Your task to perform on an android device: check android version Image 0: 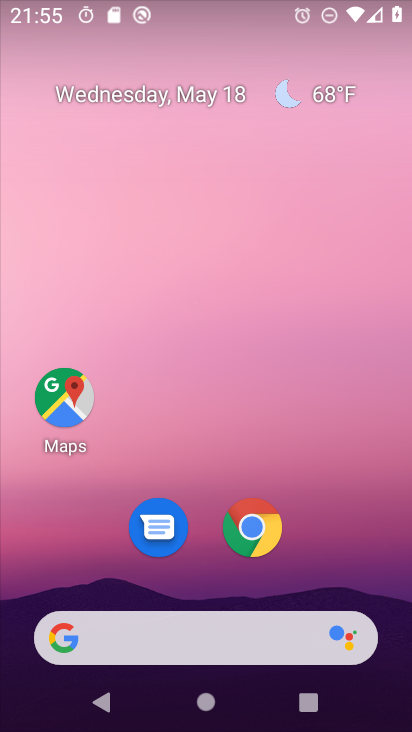
Step 0: drag from (398, 668) to (362, 134)
Your task to perform on an android device: check android version Image 1: 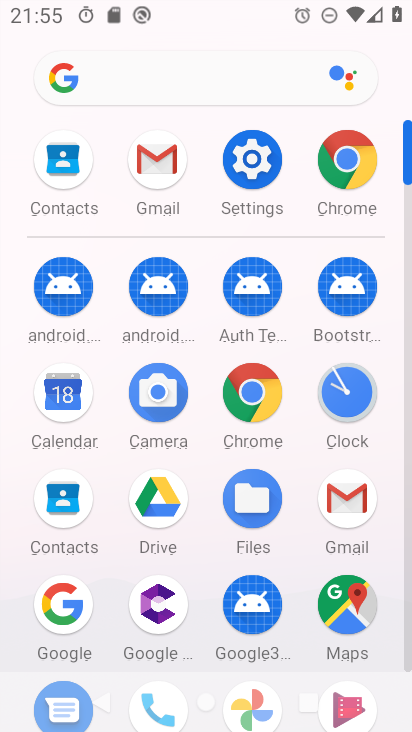
Step 1: click (265, 154)
Your task to perform on an android device: check android version Image 2: 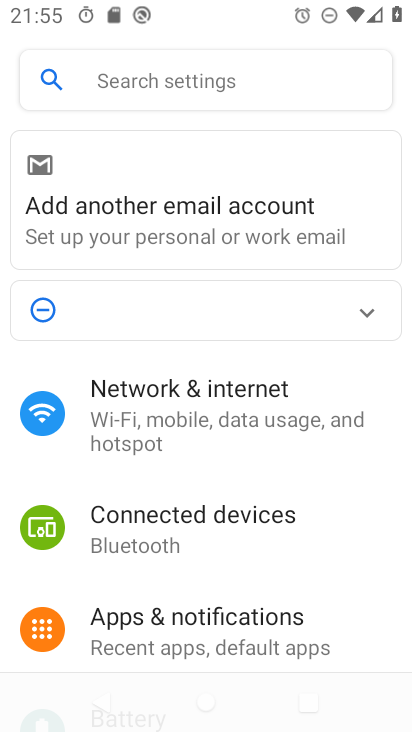
Step 2: drag from (360, 648) to (334, 50)
Your task to perform on an android device: check android version Image 3: 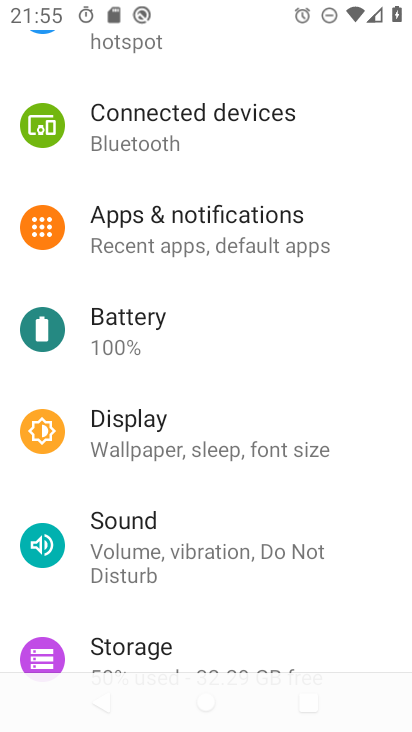
Step 3: drag from (380, 654) to (363, 70)
Your task to perform on an android device: check android version Image 4: 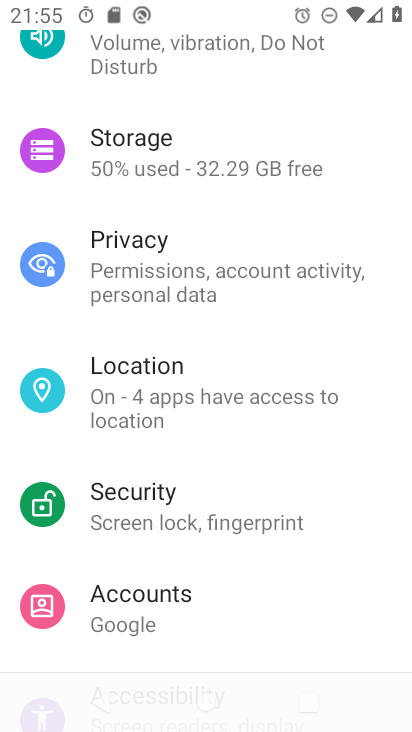
Step 4: drag from (355, 636) to (313, 90)
Your task to perform on an android device: check android version Image 5: 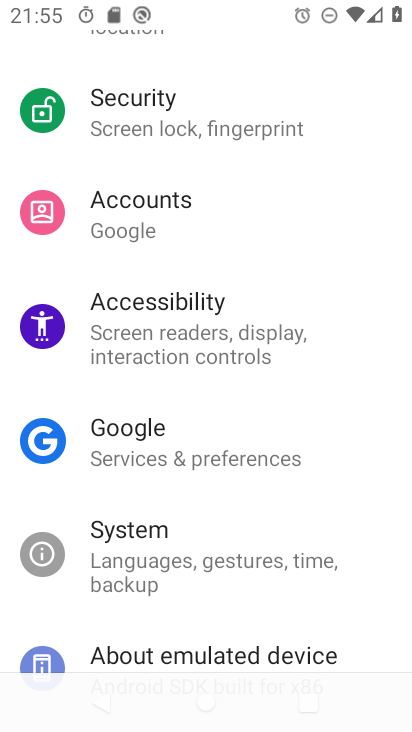
Step 5: click (129, 641)
Your task to perform on an android device: check android version Image 6: 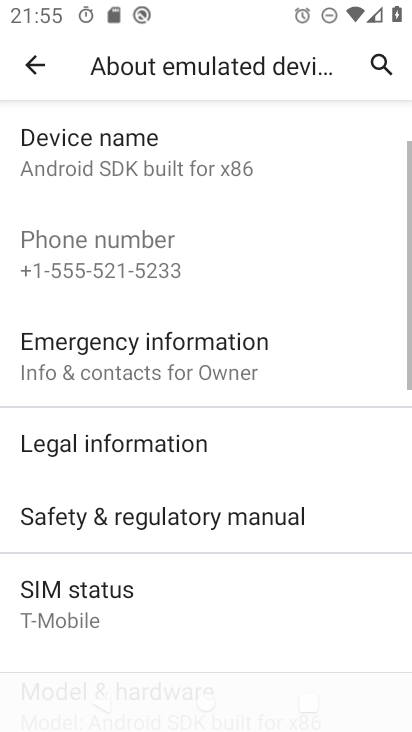
Step 6: drag from (326, 637) to (295, 142)
Your task to perform on an android device: check android version Image 7: 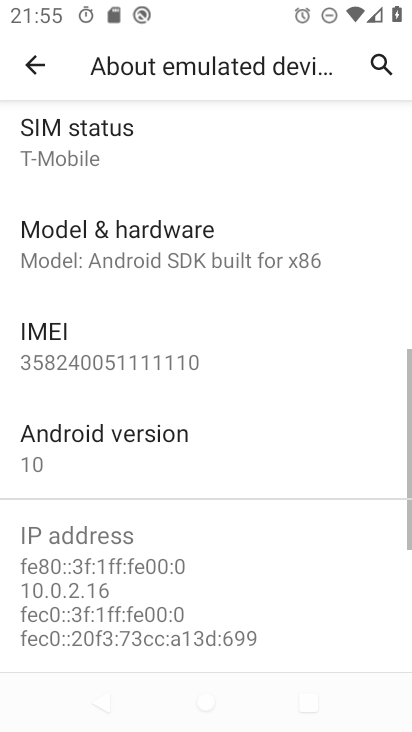
Step 7: click (47, 437)
Your task to perform on an android device: check android version Image 8: 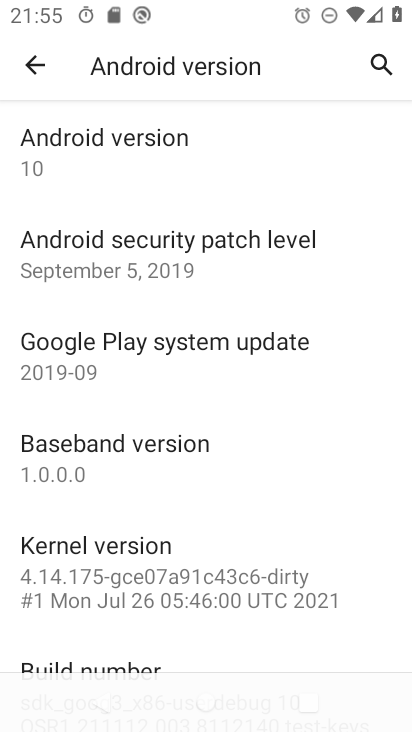
Step 8: click (94, 142)
Your task to perform on an android device: check android version Image 9: 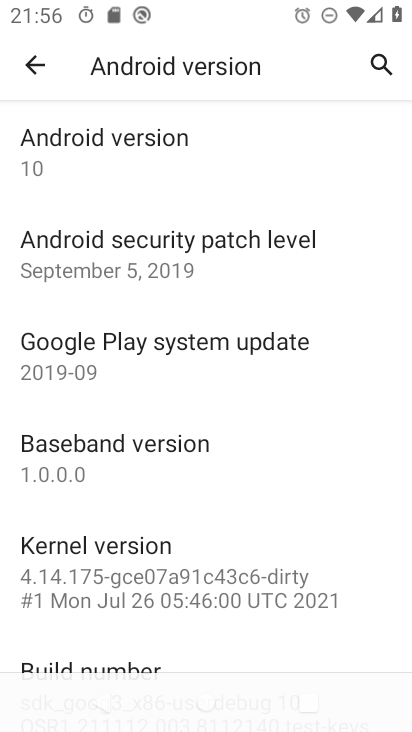
Step 9: task complete